Your task to perform on an android device: change the clock style Image 0: 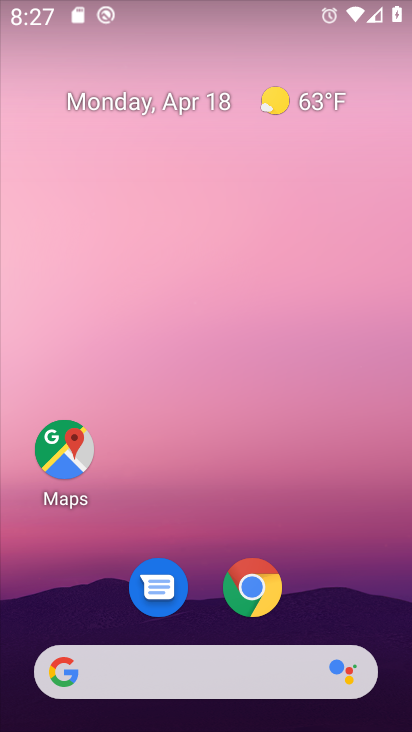
Step 0: drag from (339, 584) to (395, 279)
Your task to perform on an android device: change the clock style Image 1: 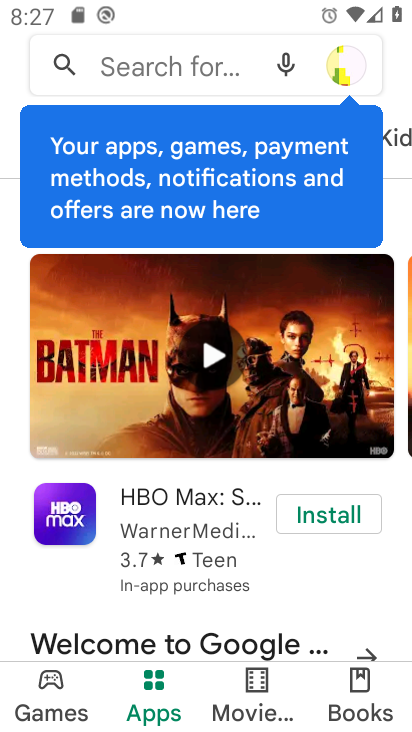
Step 1: press home button
Your task to perform on an android device: change the clock style Image 2: 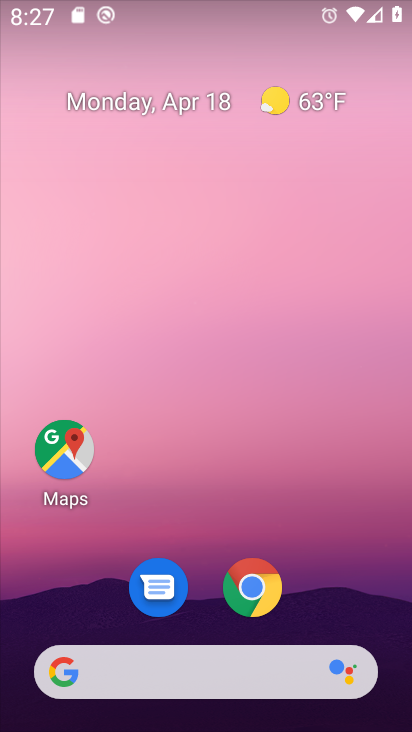
Step 2: drag from (331, 586) to (329, 101)
Your task to perform on an android device: change the clock style Image 3: 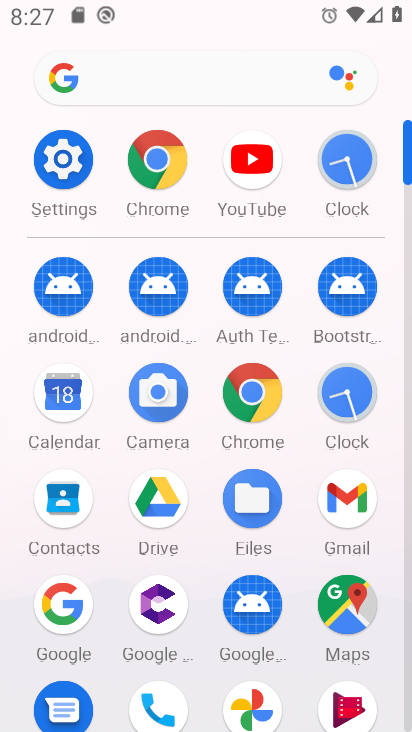
Step 3: click (74, 152)
Your task to perform on an android device: change the clock style Image 4: 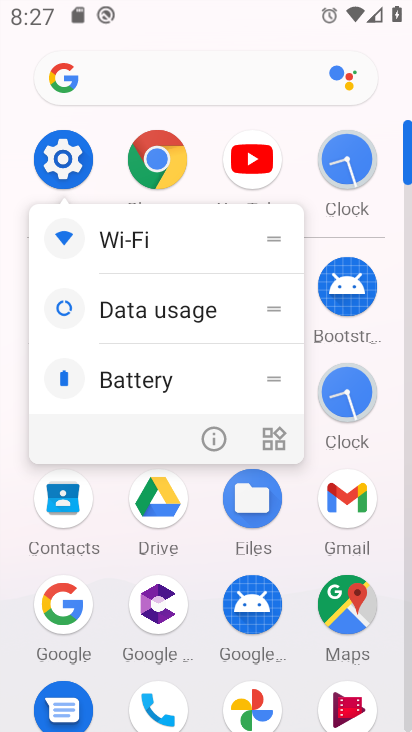
Step 4: click (368, 179)
Your task to perform on an android device: change the clock style Image 5: 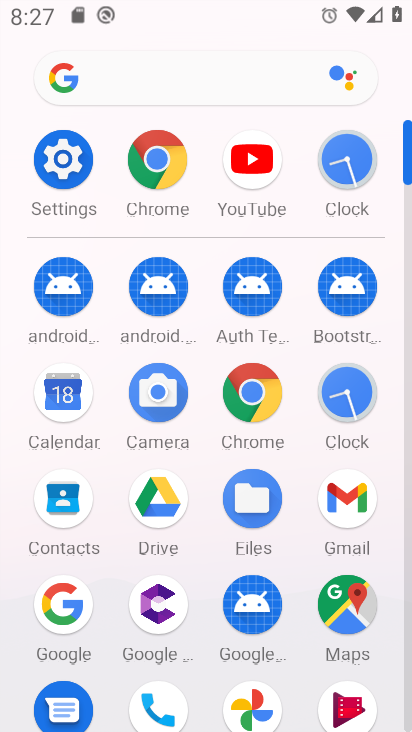
Step 5: click (368, 179)
Your task to perform on an android device: change the clock style Image 6: 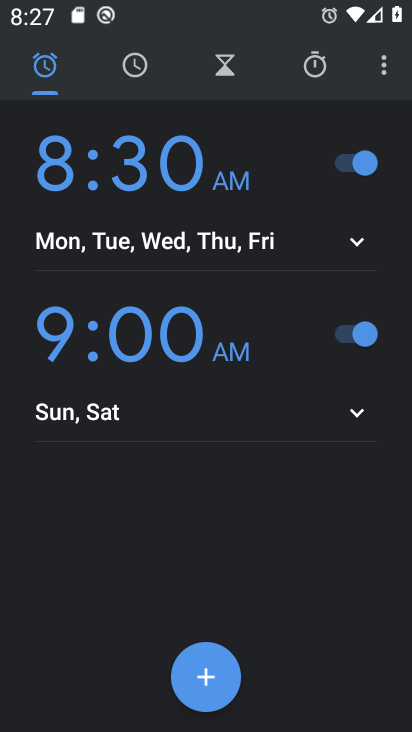
Step 6: click (385, 78)
Your task to perform on an android device: change the clock style Image 7: 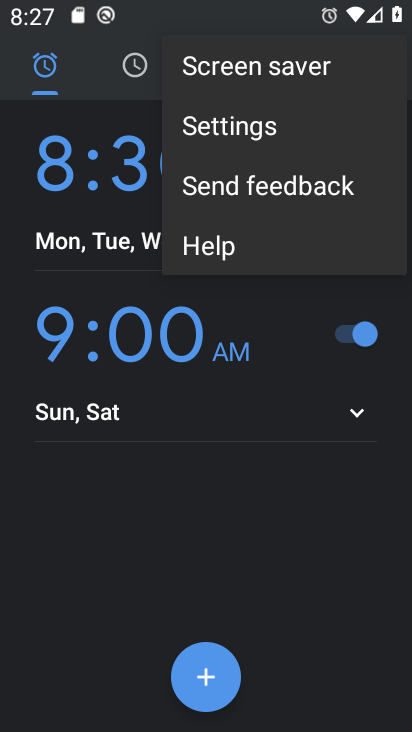
Step 7: click (222, 120)
Your task to perform on an android device: change the clock style Image 8: 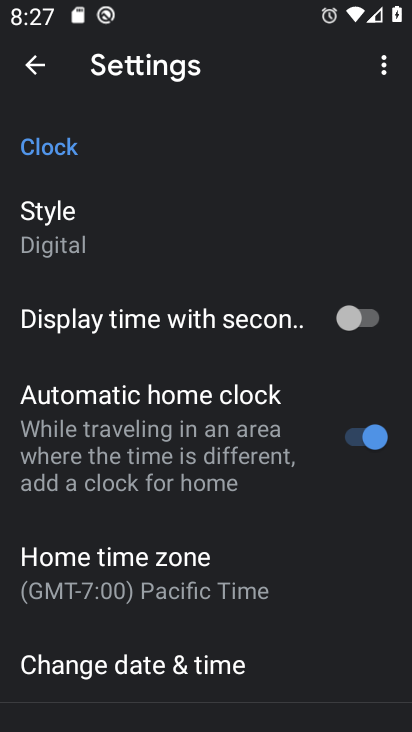
Step 8: click (137, 246)
Your task to perform on an android device: change the clock style Image 9: 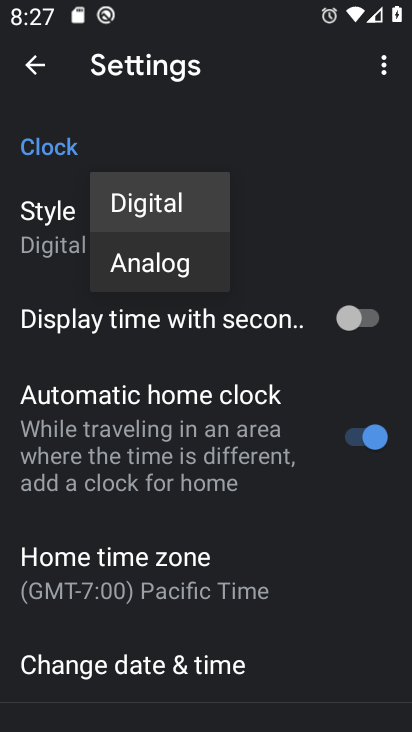
Step 9: click (144, 279)
Your task to perform on an android device: change the clock style Image 10: 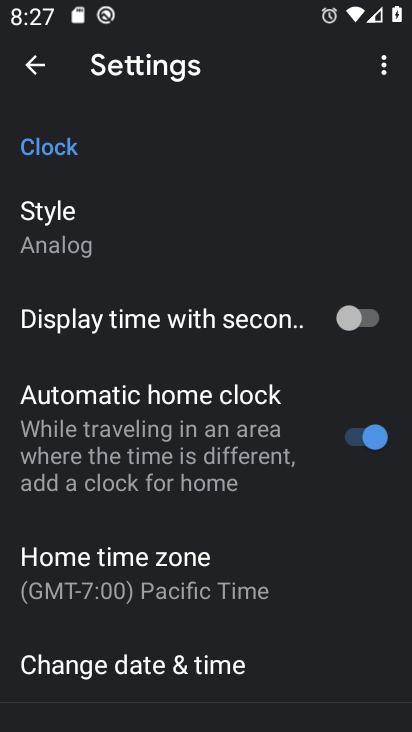
Step 10: task complete